Your task to perform on an android device: Go to Yahoo.com Image 0: 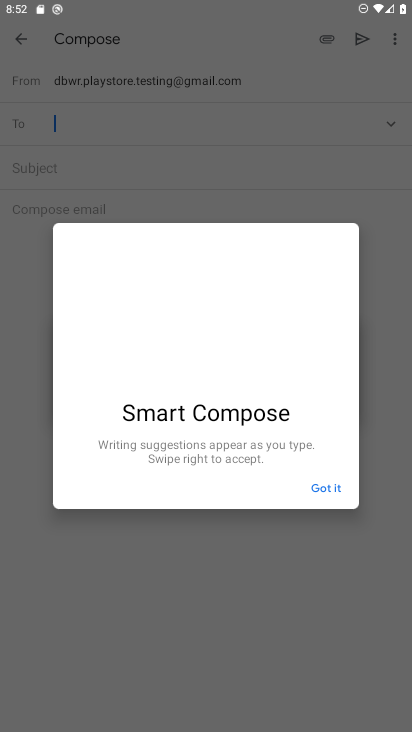
Step 0: press home button
Your task to perform on an android device: Go to Yahoo.com Image 1: 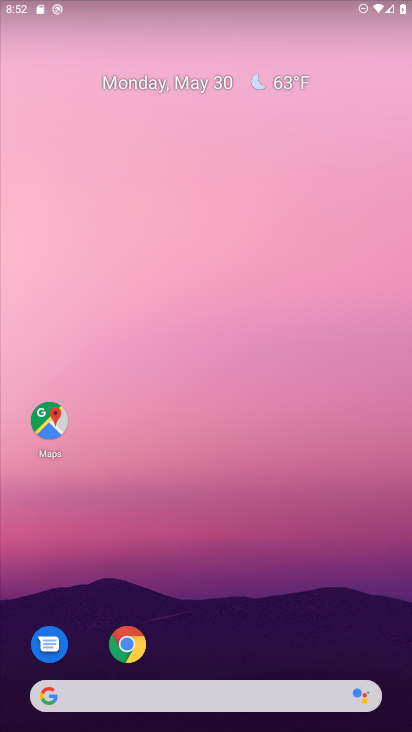
Step 1: drag from (205, 639) to (215, 81)
Your task to perform on an android device: Go to Yahoo.com Image 2: 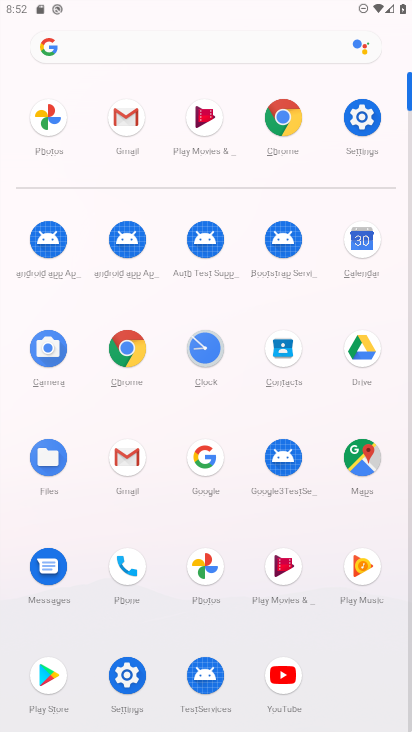
Step 2: click (131, 351)
Your task to perform on an android device: Go to Yahoo.com Image 3: 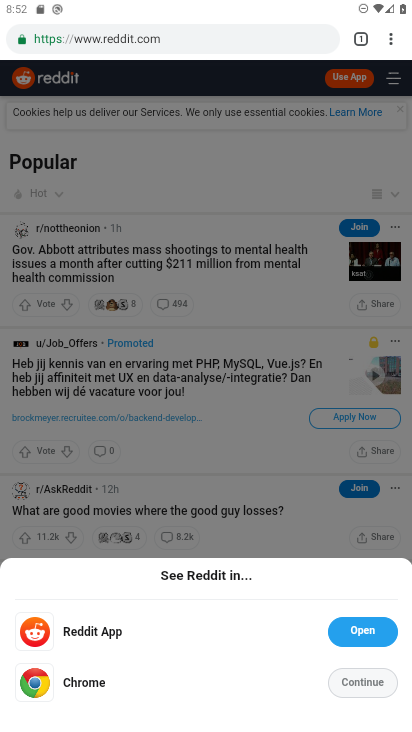
Step 3: press back button
Your task to perform on an android device: Go to Yahoo.com Image 4: 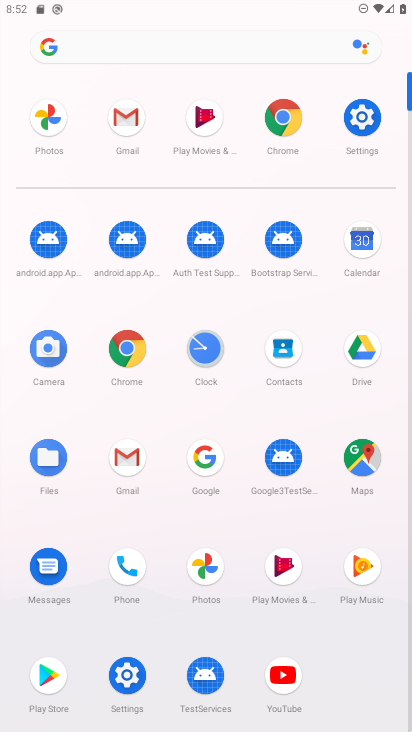
Step 4: click (126, 351)
Your task to perform on an android device: Go to Yahoo.com Image 5: 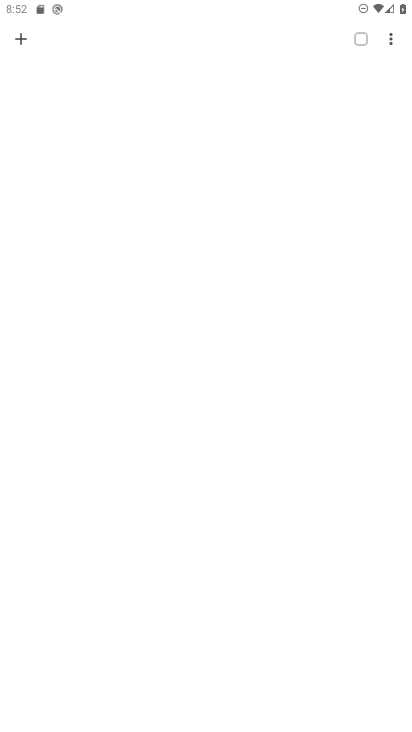
Step 5: click (23, 40)
Your task to perform on an android device: Go to Yahoo.com Image 6: 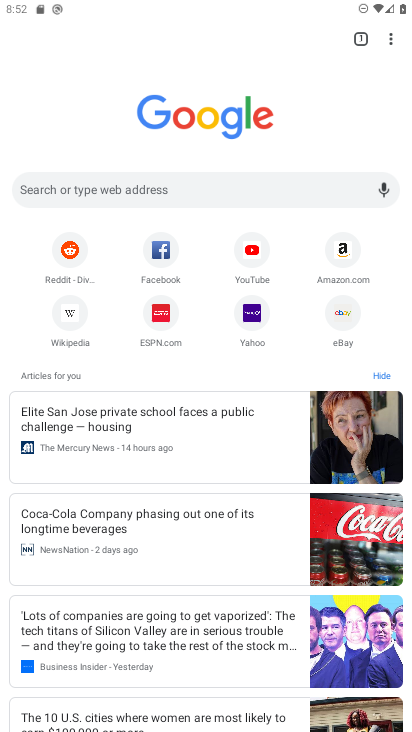
Step 6: click (252, 315)
Your task to perform on an android device: Go to Yahoo.com Image 7: 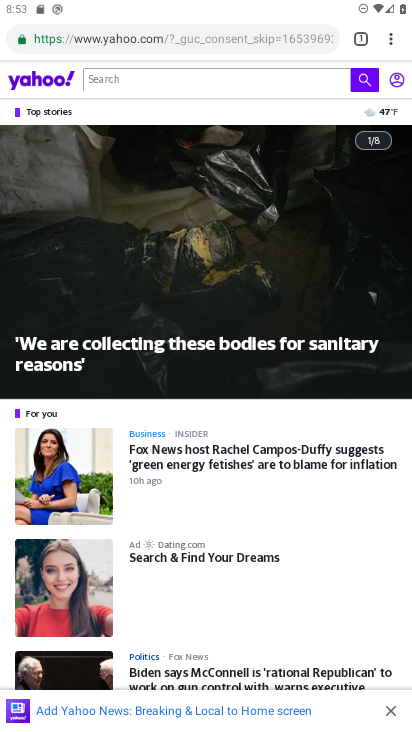
Step 7: task complete